Your task to perform on an android device: manage bookmarks in the chrome app Image 0: 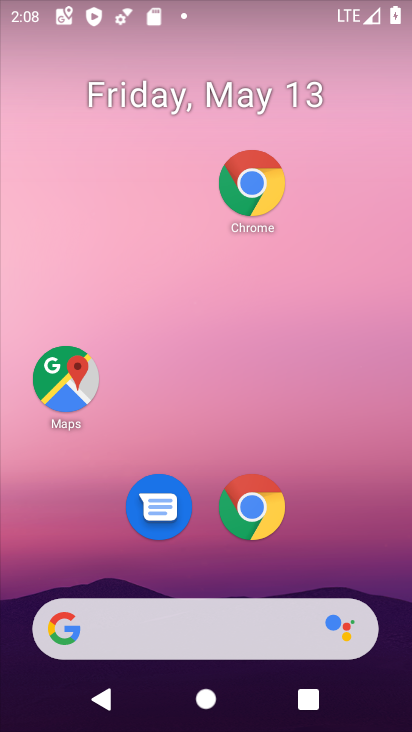
Step 0: drag from (326, 555) to (140, 61)
Your task to perform on an android device: manage bookmarks in the chrome app Image 1: 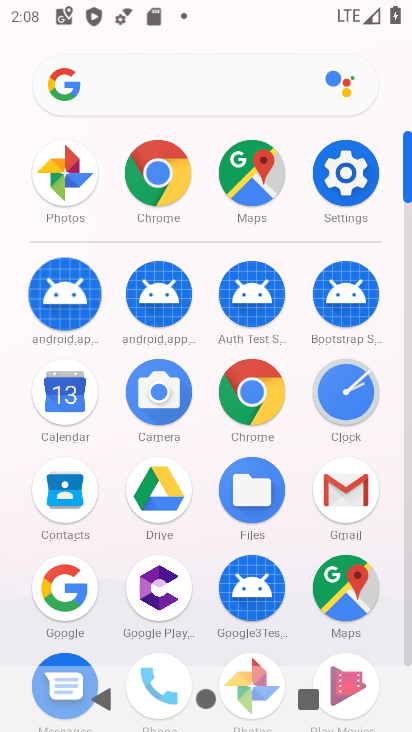
Step 1: click (162, 169)
Your task to perform on an android device: manage bookmarks in the chrome app Image 2: 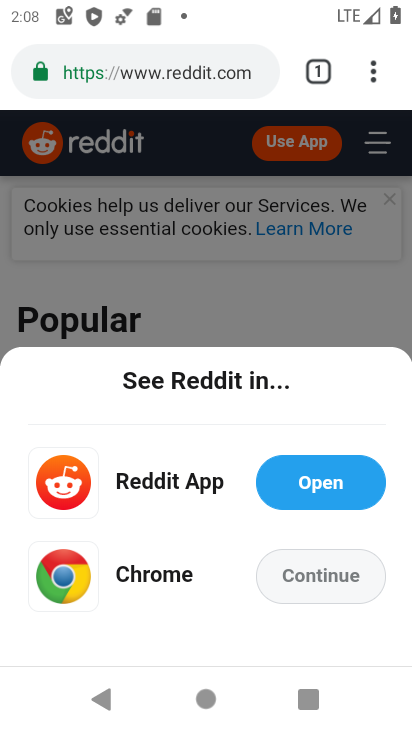
Step 2: task complete